Your task to perform on an android device: Search for seafood restaurants on Google Maps Image 0: 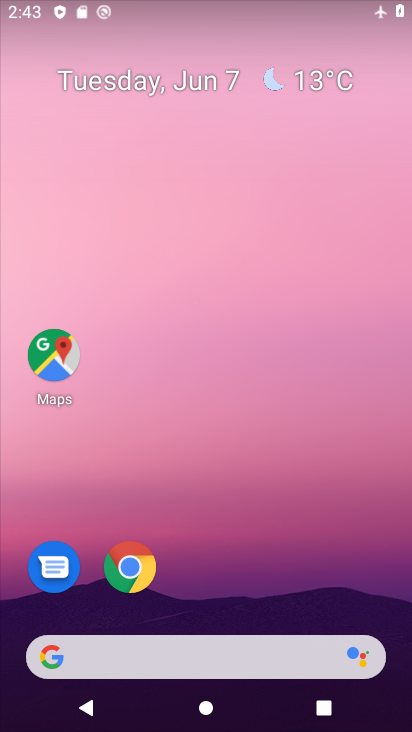
Step 0: click (72, 374)
Your task to perform on an android device: Search for seafood restaurants on Google Maps Image 1: 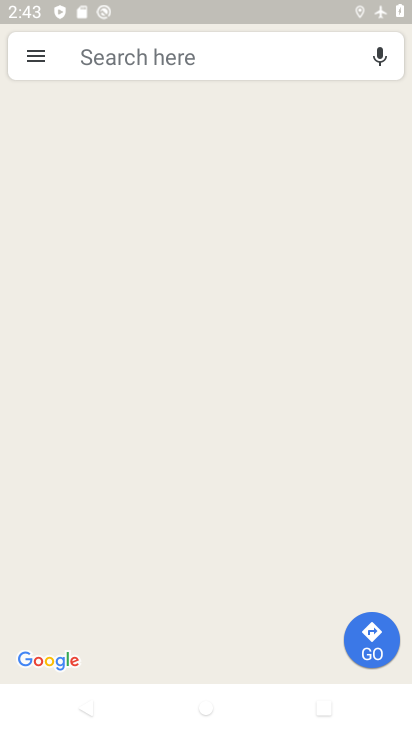
Step 1: drag from (356, 4) to (288, 496)
Your task to perform on an android device: Search for seafood restaurants on Google Maps Image 2: 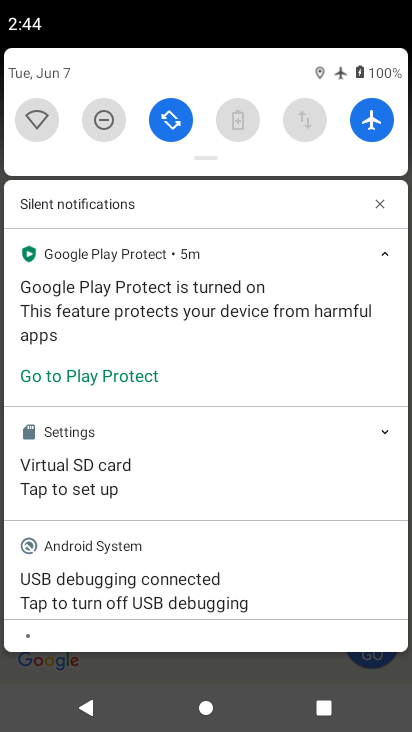
Step 2: click (383, 122)
Your task to perform on an android device: Search for seafood restaurants on Google Maps Image 3: 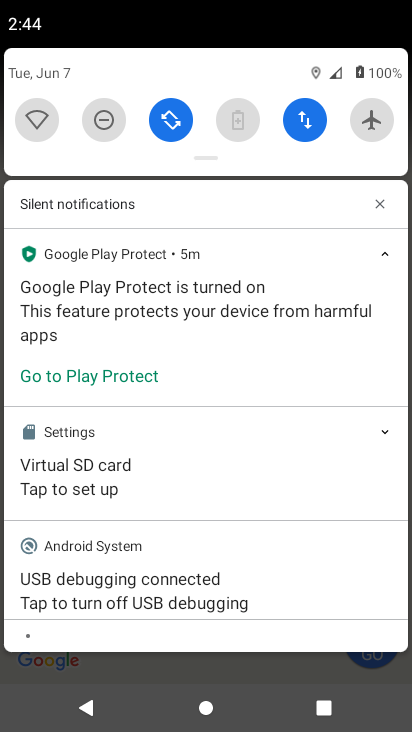
Step 3: drag from (140, 659) to (207, 153)
Your task to perform on an android device: Search for seafood restaurants on Google Maps Image 4: 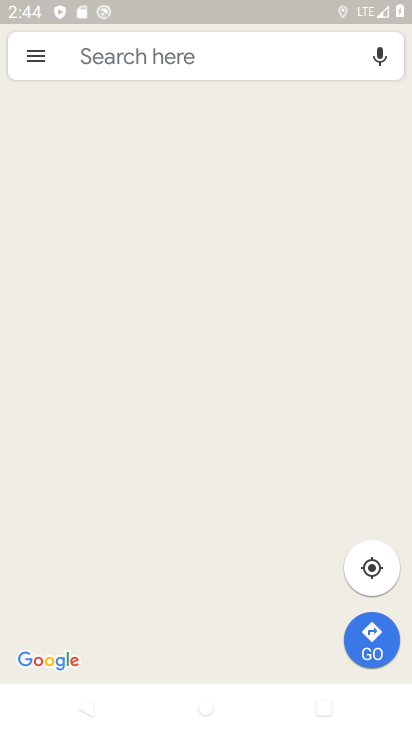
Step 4: click (91, 51)
Your task to perform on an android device: Search for seafood restaurants on Google Maps Image 5: 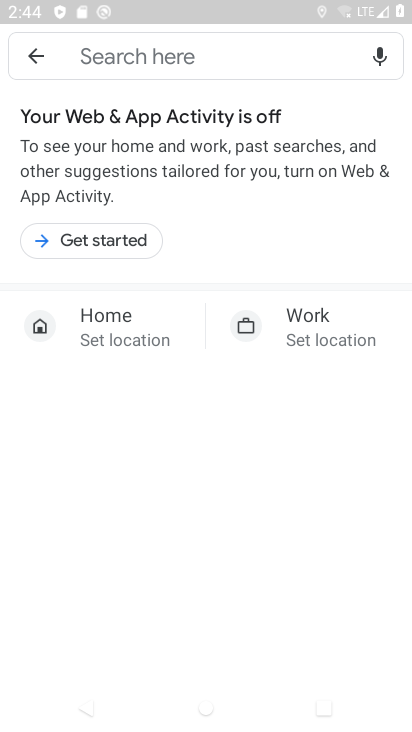
Step 5: type " seafood restaurants "
Your task to perform on an android device: Search for seafood restaurants on Google Maps Image 6: 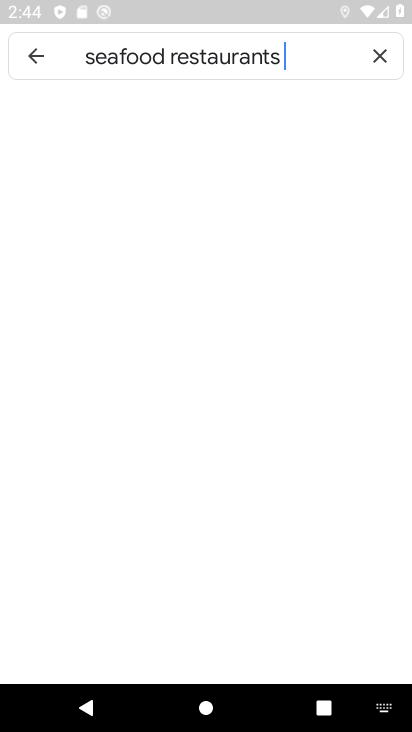
Step 6: type ""
Your task to perform on an android device: Search for seafood restaurants on Google Maps Image 7: 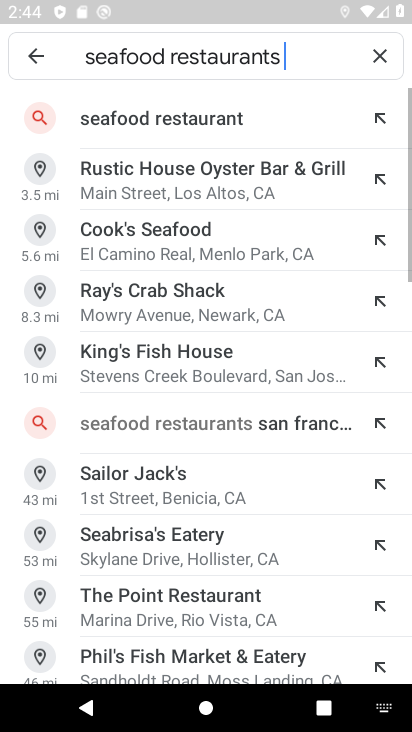
Step 7: click (188, 112)
Your task to perform on an android device: Search for seafood restaurants on Google Maps Image 8: 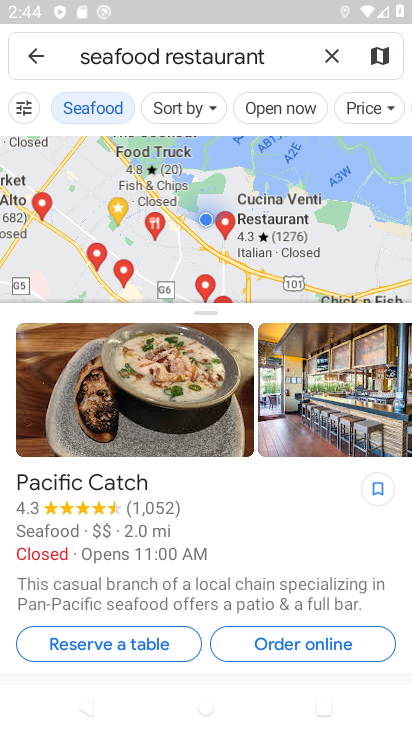
Step 8: task complete